Your task to perform on an android device: all mails in gmail Image 0: 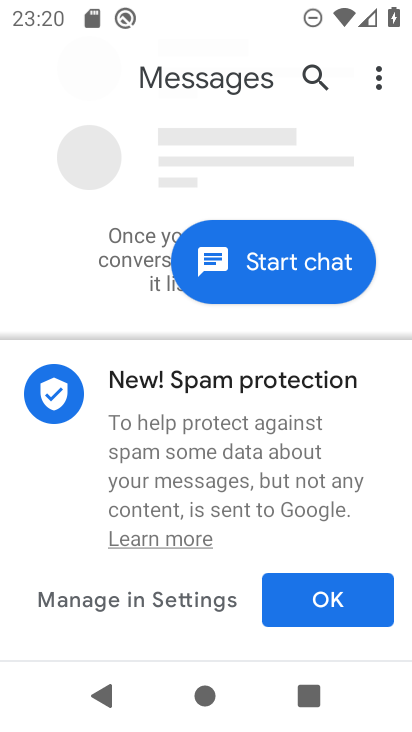
Step 0: press home button
Your task to perform on an android device: all mails in gmail Image 1: 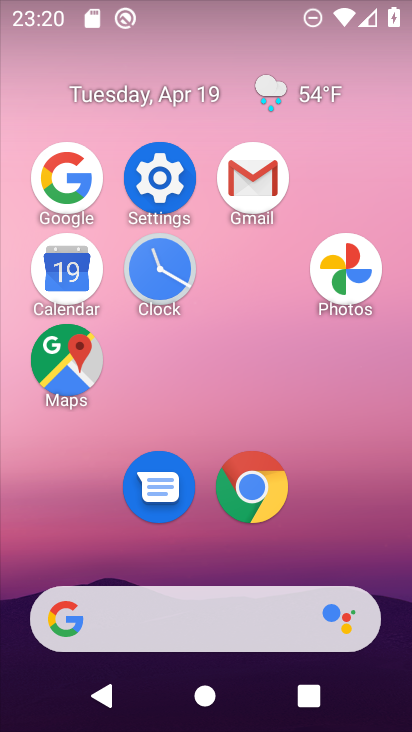
Step 1: click (273, 175)
Your task to perform on an android device: all mails in gmail Image 2: 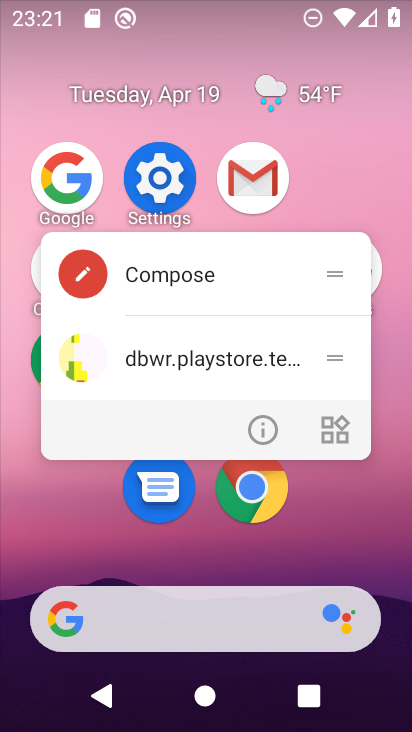
Step 2: click (273, 175)
Your task to perform on an android device: all mails in gmail Image 3: 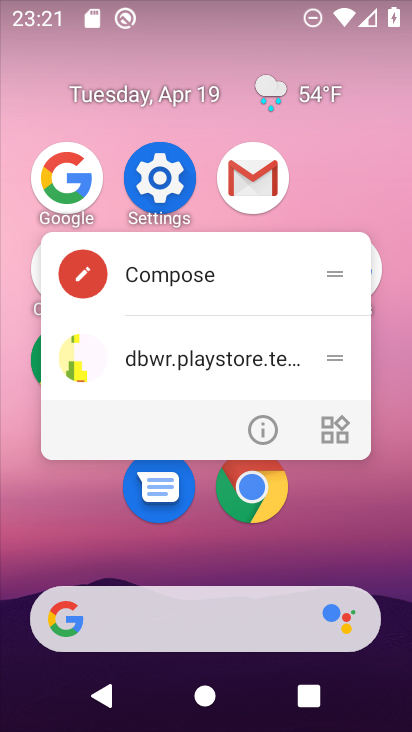
Step 3: click (273, 175)
Your task to perform on an android device: all mails in gmail Image 4: 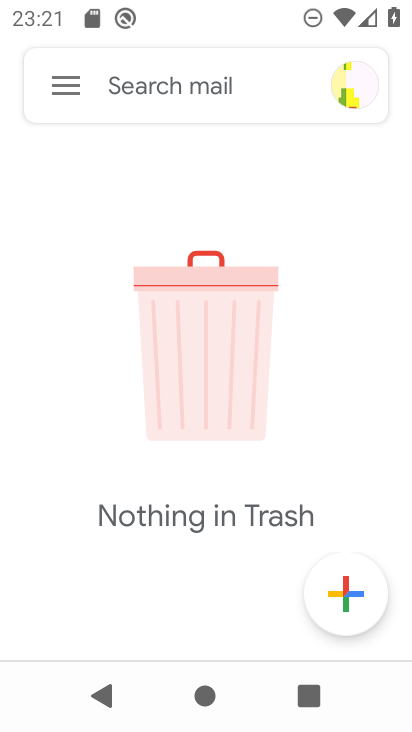
Step 4: click (64, 84)
Your task to perform on an android device: all mails in gmail Image 5: 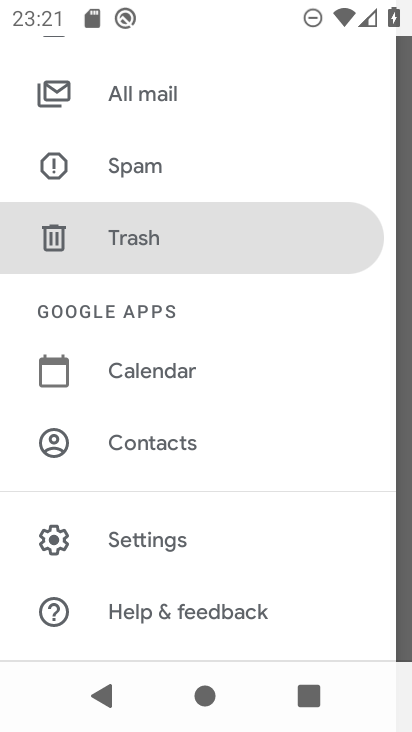
Step 5: click (178, 104)
Your task to perform on an android device: all mails in gmail Image 6: 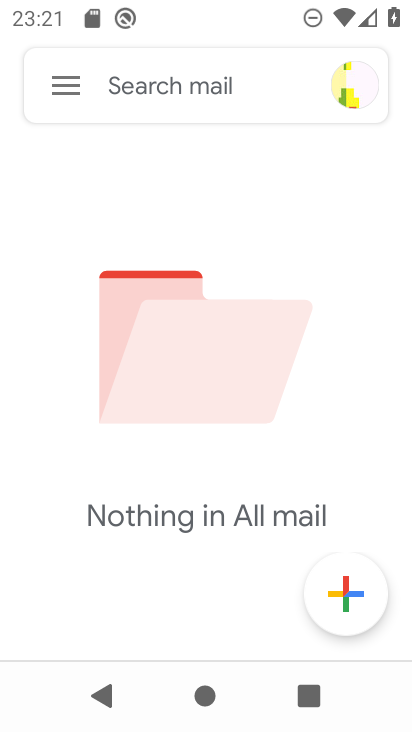
Step 6: task complete